Your task to perform on an android device: Show me productivity apps on the Play Store Image 0: 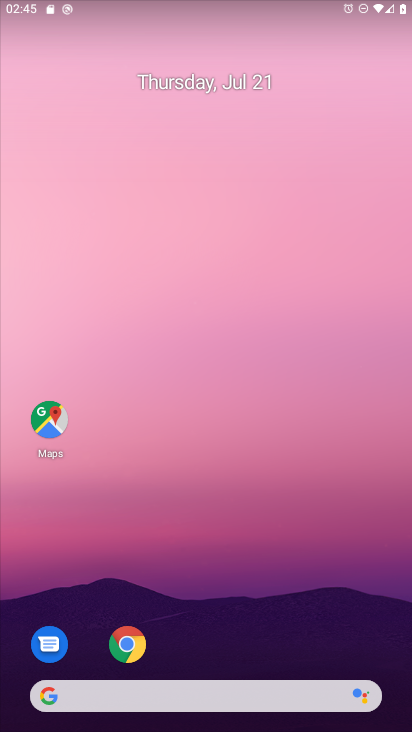
Step 0: drag from (190, 659) to (218, 195)
Your task to perform on an android device: Show me productivity apps on the Play Store Image 1: 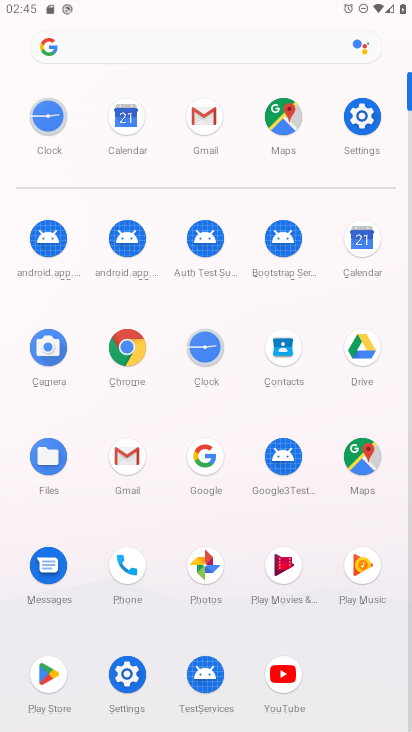
Step 1: click (33, 673)
Your task to perform on an android device: Show me productivity apps on the Play Store Image 2: 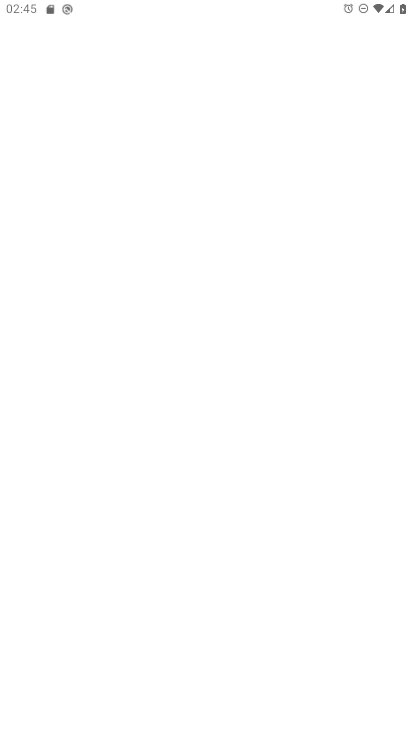
Step 2: task complete